Your task to perform on an android device: Is it going to rain tomorrow? Image 0: 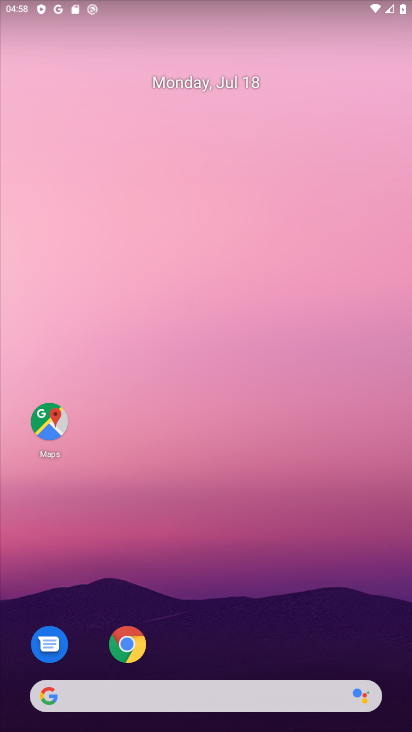
Step 0: press home button
Your task to perform on an android device: Is it going to rain tomorrow? Image 1: 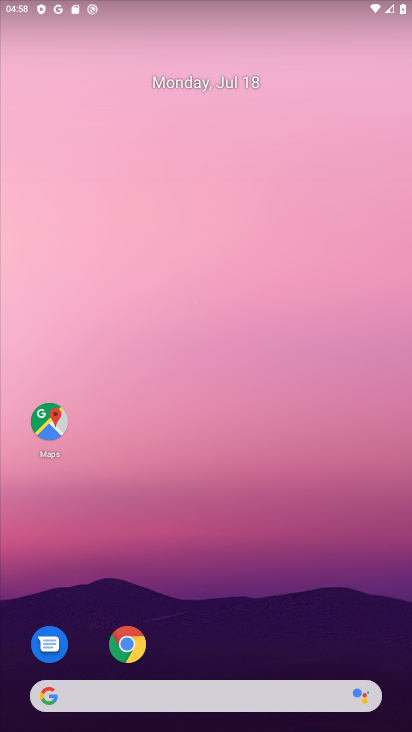
Step 1: click (42, 699)
Your task to perform on an android device: Is it going to rain tomorrow? Image 2: 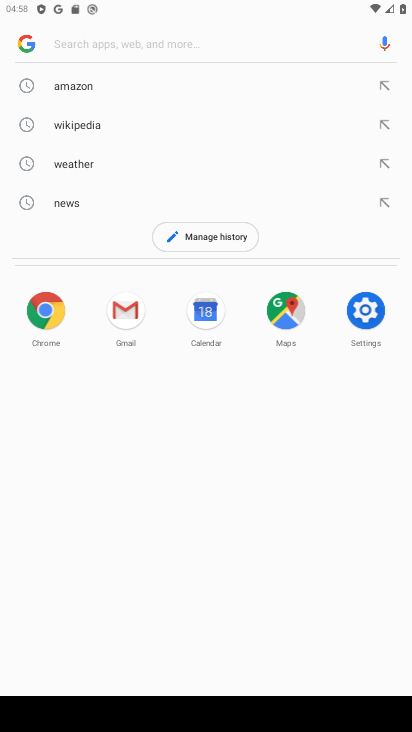
Step 2: type " rain tomorrow?"
Your task to perform on an android device: Is it going to rain tomorrow? Image 3: 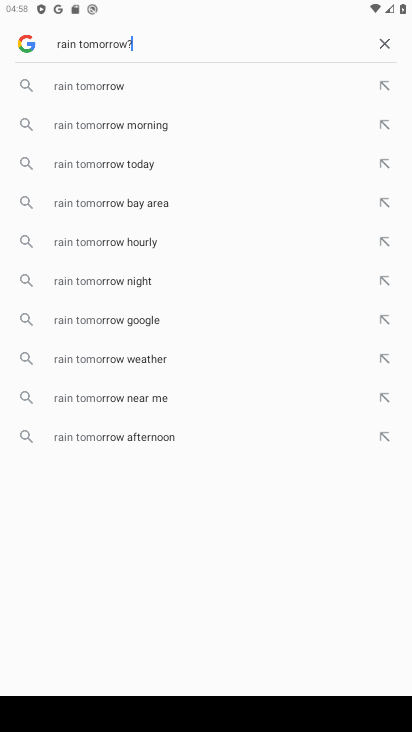
Step 3: press enter
Your task to perform on an android device: Is it going to rain tomorrow? Image 4: 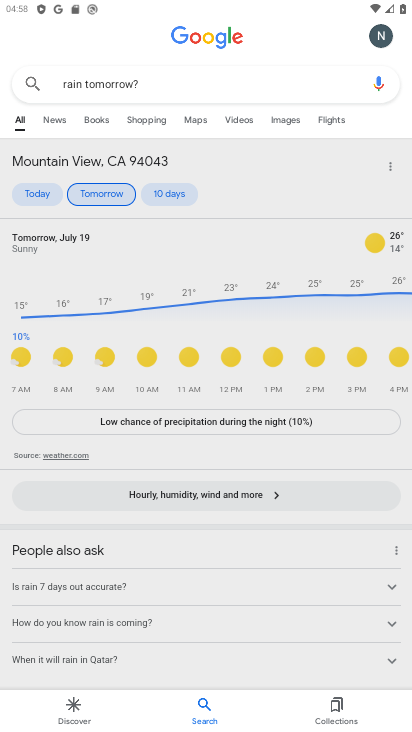
Step 4: task complete